Your task to perform on an android device: turn on improve location accuracy Image 0: 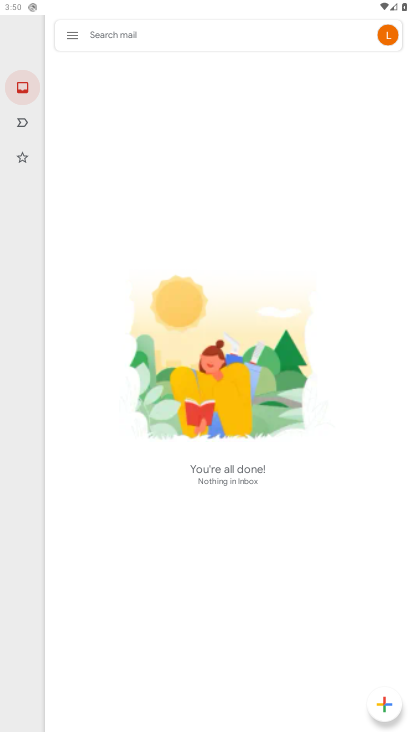
Step 0: press home button
Your task to perform on an android device: turn on improve location accuracy Image 1: 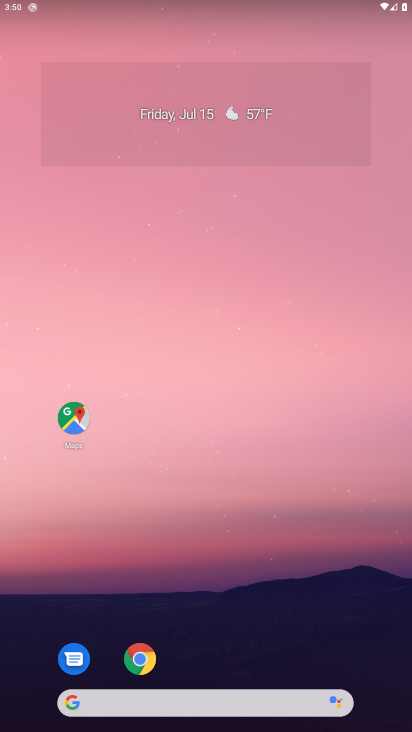
Step 1: drag from (12, 669) to (194, 113)
Your task to perform on an android device: turn on improve location accuracy Image 2: 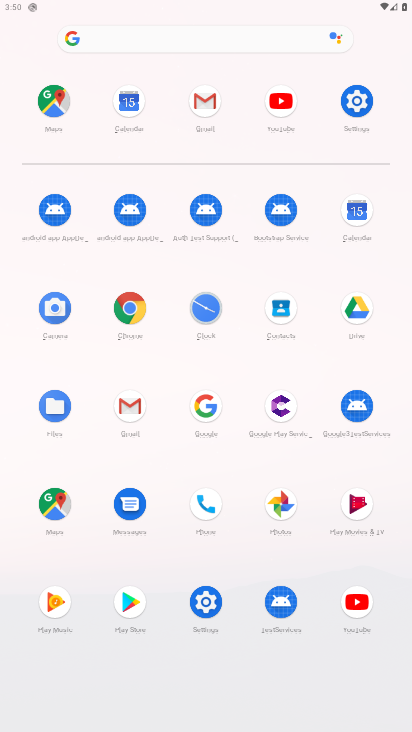
Step 2: click (209, 590)
Your task to perform on an android device: turn on improve location accuracy Image 3: 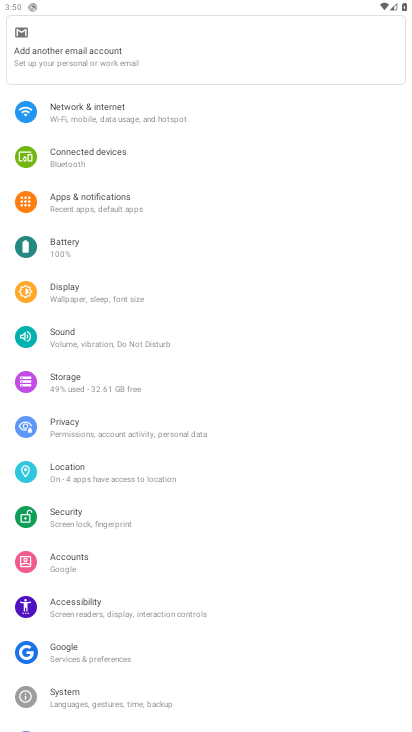
Step 3: click (110, 465)
Your task to perform on an android device: turn on improve location accuracy Image 4: 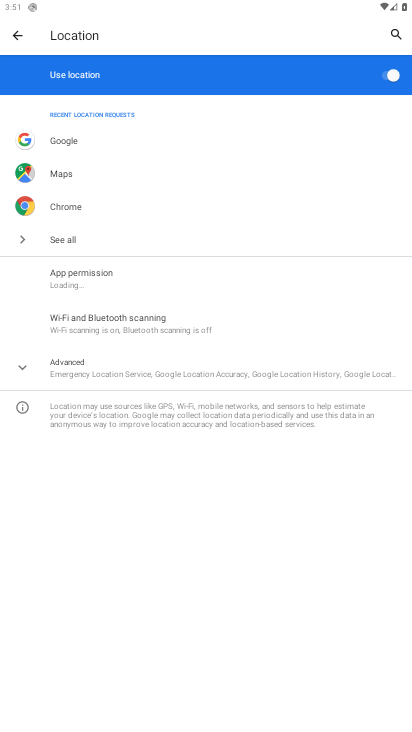
Step 4: click (99, 367)
Your task to perform on an android device: turn on improve location accuracy Image 5: 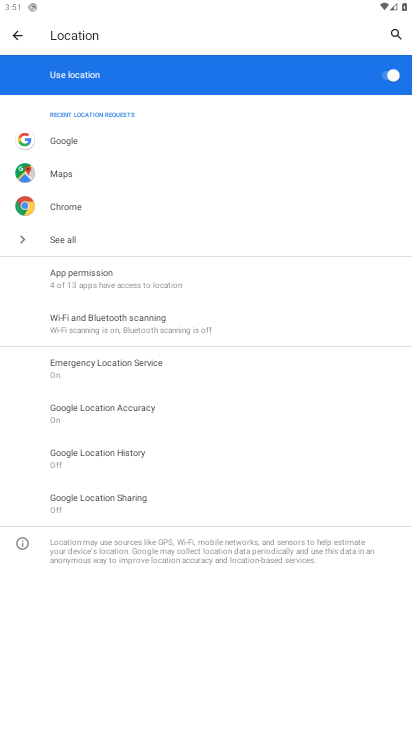
Step 5: click (117, 419)
Your task to perform on an android device: turn on improve location accuracy Image 6: 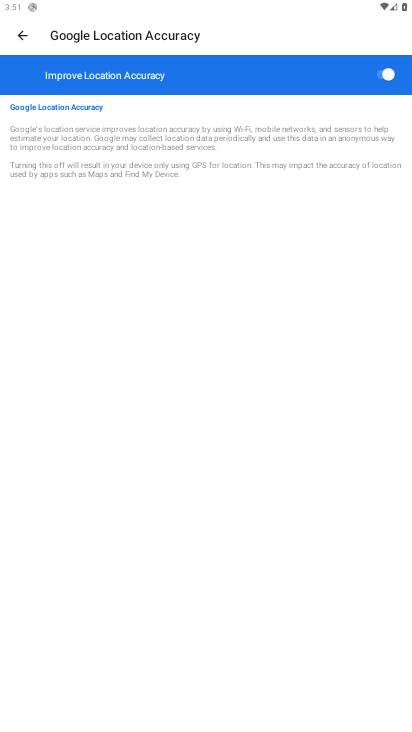
Step 6: click (384, 71)
Your task to perform on an android device: turn on improve location accuracy Image 7: 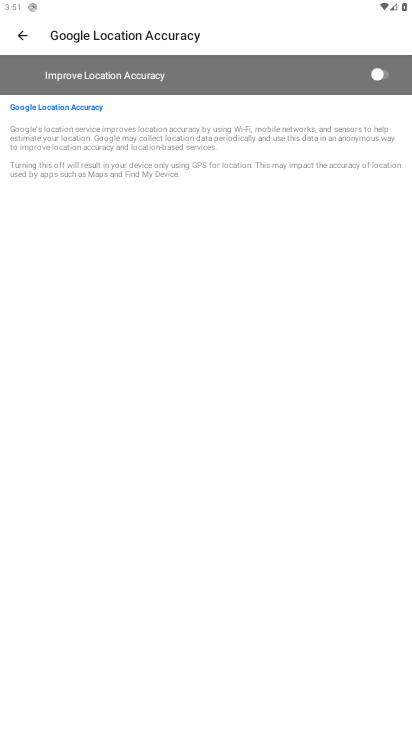
Step 7: click (389, 73)
Your task to perform on an android device: turn on improve location accuracy Image 8: 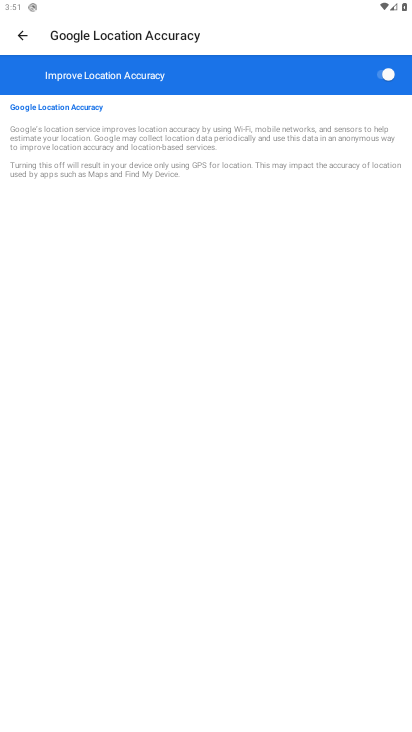
Step 8: task complete